Your task to perform on an android device: open device folders in google photos Image 0: 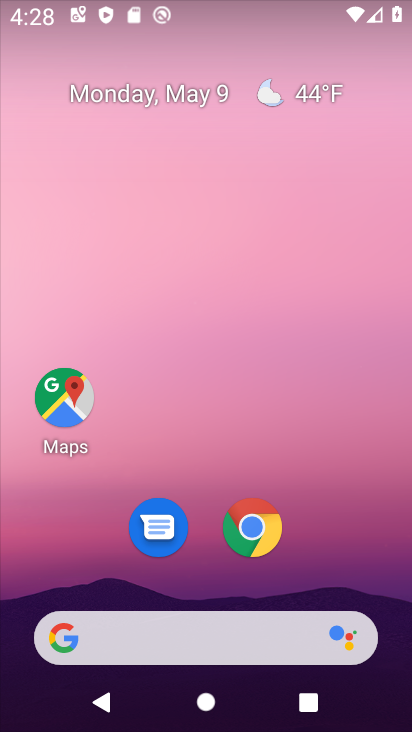
Step 0: drag from (212, 584) to (234, 33)
Your task to perform on an android device: open device folders in google photos Image 1: 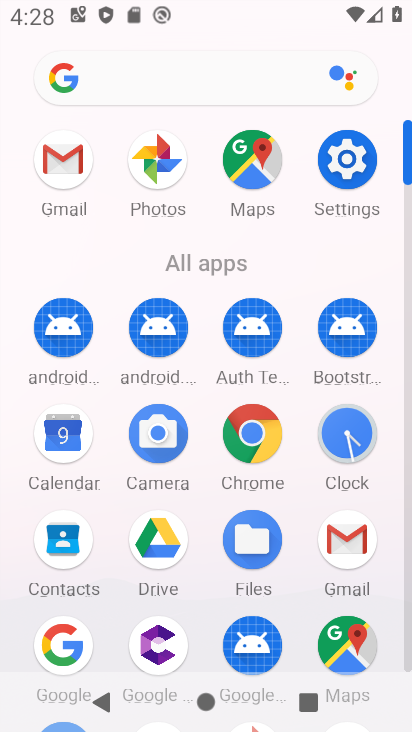
Step 1: click (155, 158)
Your task to perform on an android device: open device folders in google photos Image 2: 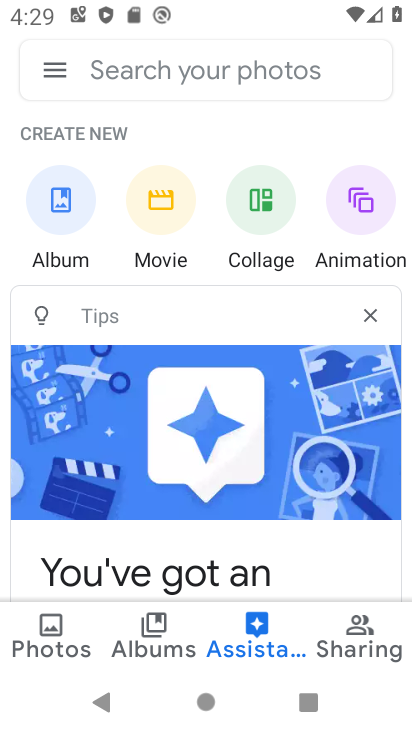
Step 2: click (60, 91)
Your task to perform on an android device: open device folders in google photos Image 3: 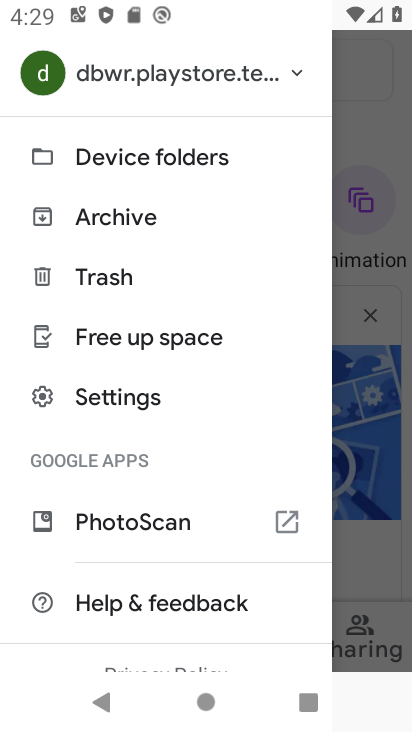
Step 3: click (117, 152)
Your task to perform on an android device: open device folders in google photos Image 4: 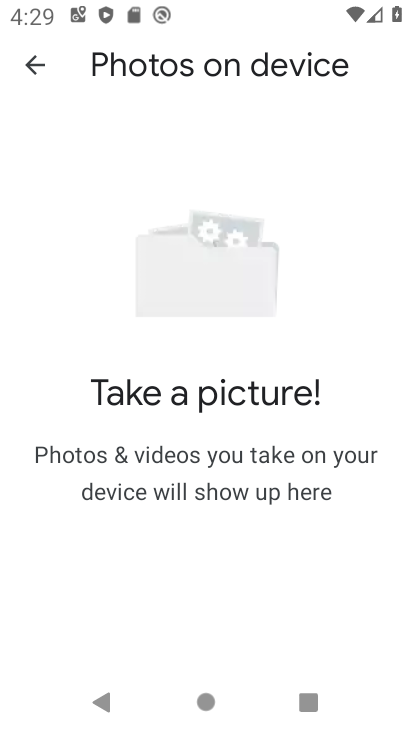
Step 4: task complete